Your task to perform on an android device: Turn on the flashlight Image 0: 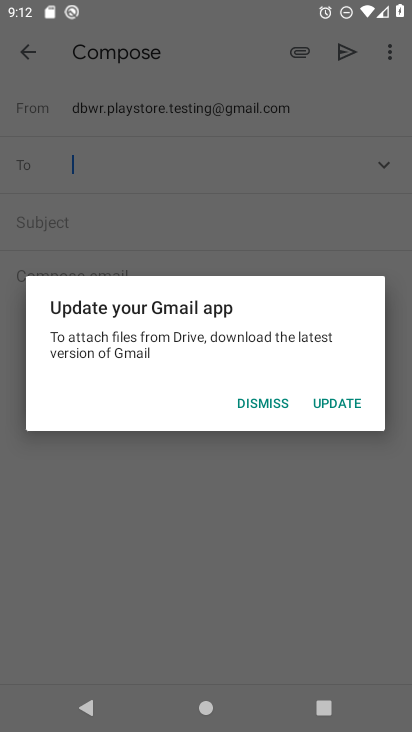
Step 0: press home button
Your task to perform on an android device: Turn on the flashlight Image 1: 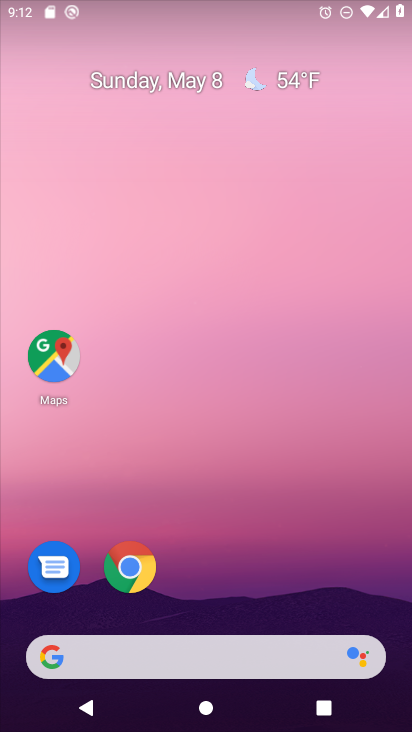
Step 1: drag from (304, 564) to (263, 86)
Your task to perform on an android device: Turn on the flashlight Image 2: 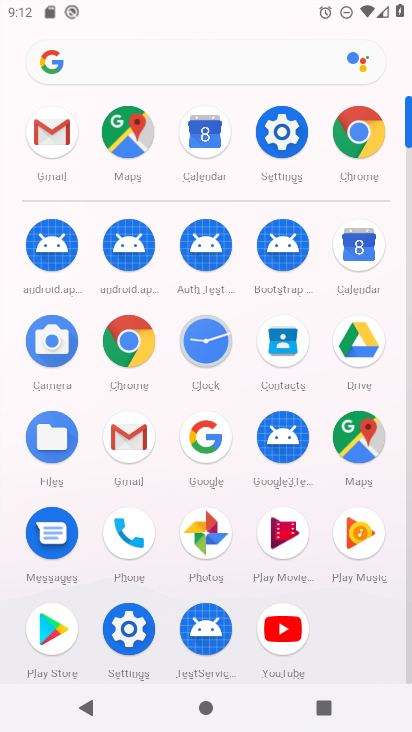
Step 2: click (268, 136)
Your task to perform on an android device: Turn on the flashlight Image 3: 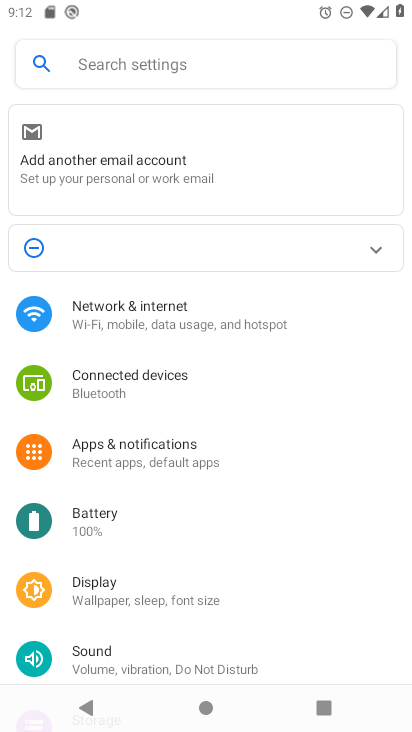
Step 3: task complete